Your task to perform on an android device: What's on my calendar tomorrow? Image 0: 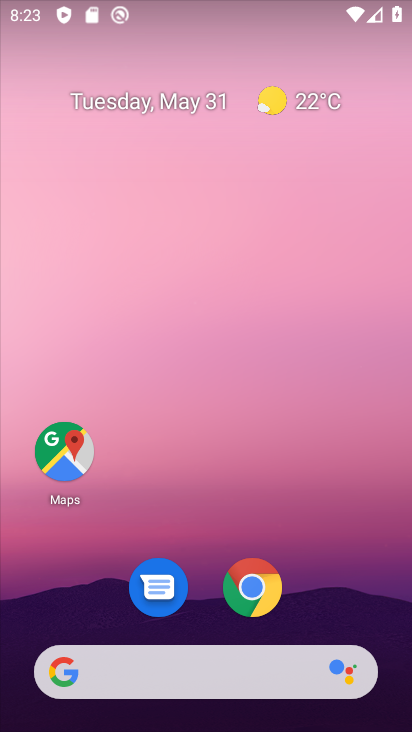
Step 0: click (180, 106)
Your task to perform on an android device: What's on my calendar tomorrow? Image 1: 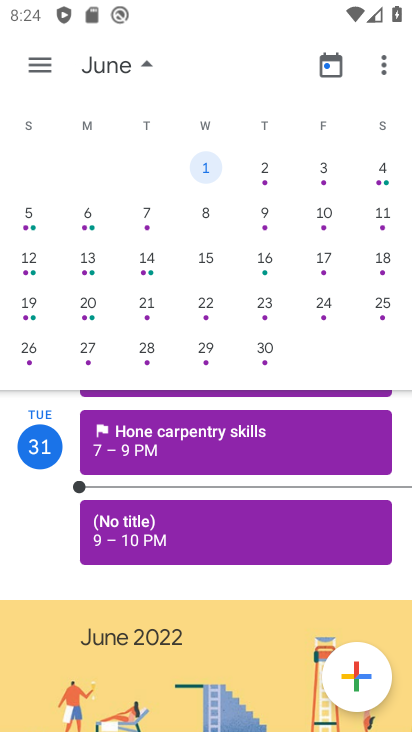
Step 1: task complete